Your task to perform on an android device: turn off translation in the chrome app Image 0: 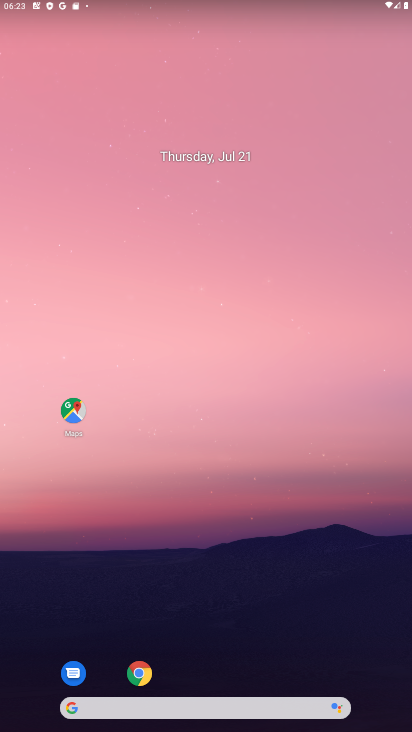
Step 0: click (142, 676)
Your task to perform on an android device: turn off translation in the chrome app Image 1: 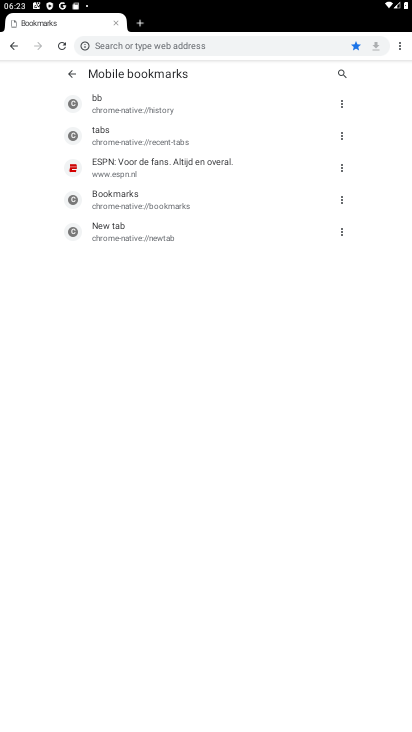
Step 1: click (399, 44)
Your task to perform on an android device: turn off translation in the chrome app Image 2: 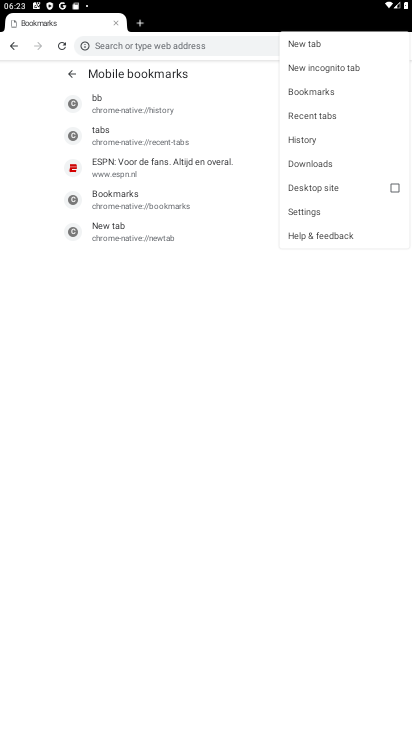
Step 2: click (399, 44)
Your task to perform on an android device: turn off translation in the chrome app Image 3: 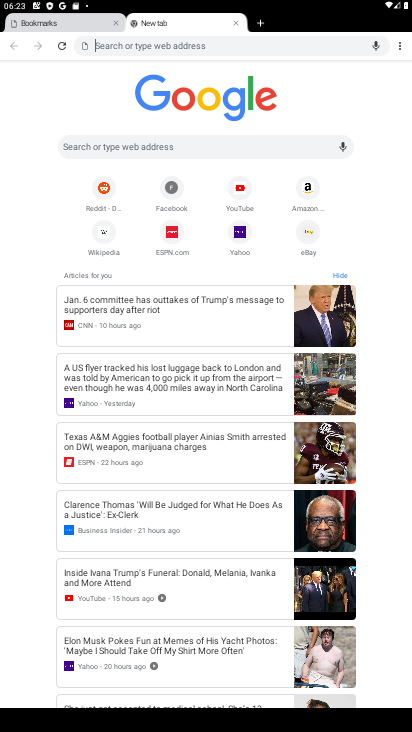
Step 3: click (399, 40)
Your task to perform on an android device: turn off translation in the chrome app Image 4: 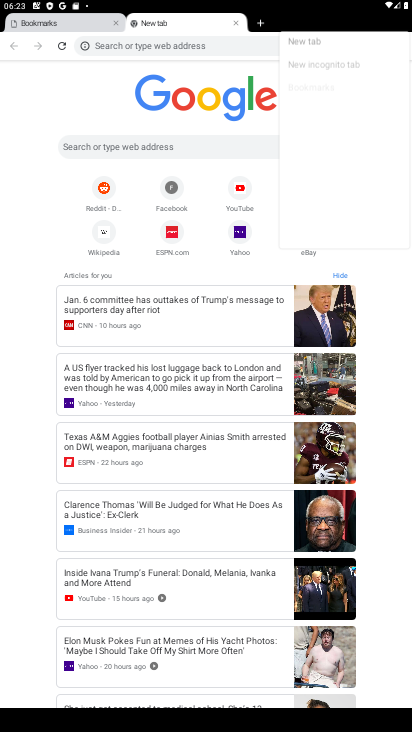
Step 4: click (399, 40)
Your task to perform on an android device: turn off translation in the chrome app Image 5: 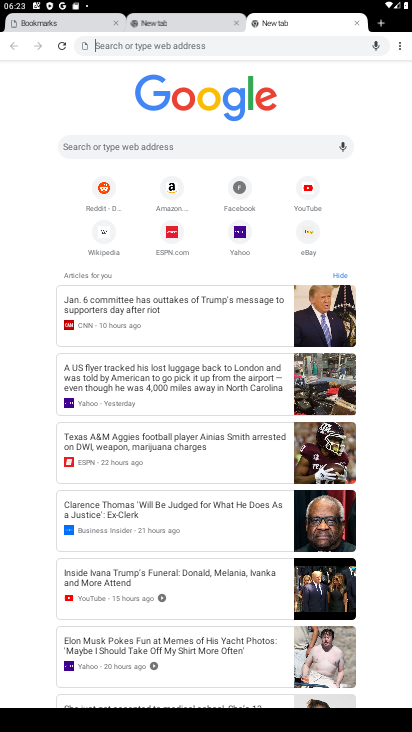
Step 5: click (403, 49)
Your task to perform on an android device: turn off translation in the chrome app Image 6: 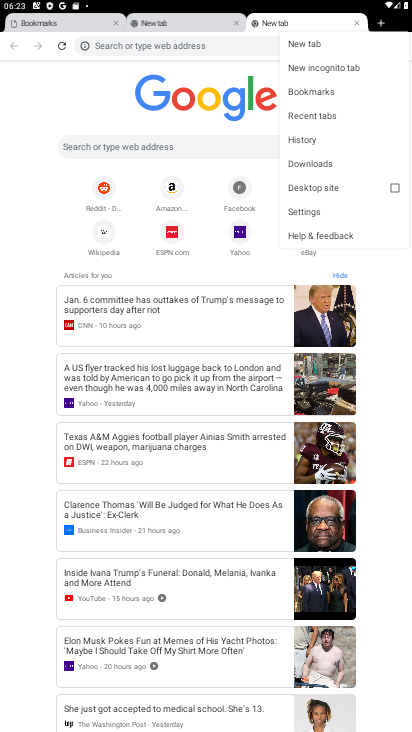
Step 6: click (297, 207)
Your task to perform on an android device: turn off translation in the chrome app Image 7: 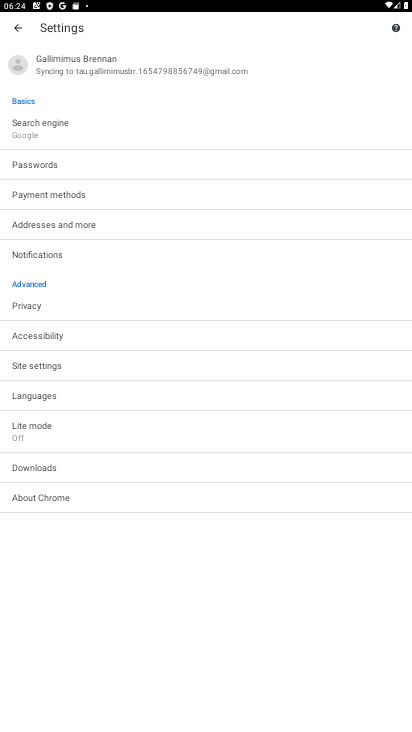
Step 7: click (46, 396)
Your task to perform on an android device: turn off translation in the chrome app Image 8: 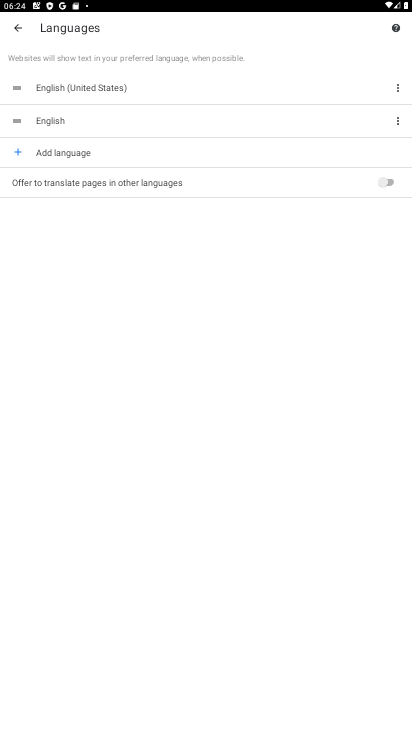
Step 8: click (386, 187)
Your task to perform on an android device: turn off translation in the chrome app Image 9: 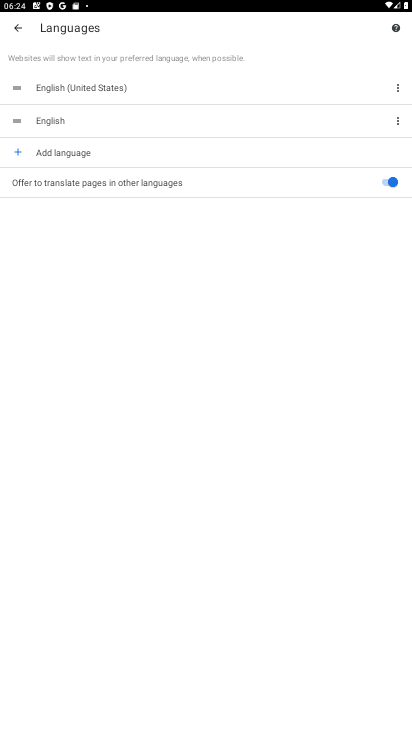
Step 9: task complete